Your task to perform on an android device: Is it going to rain this weekend? Image 0: 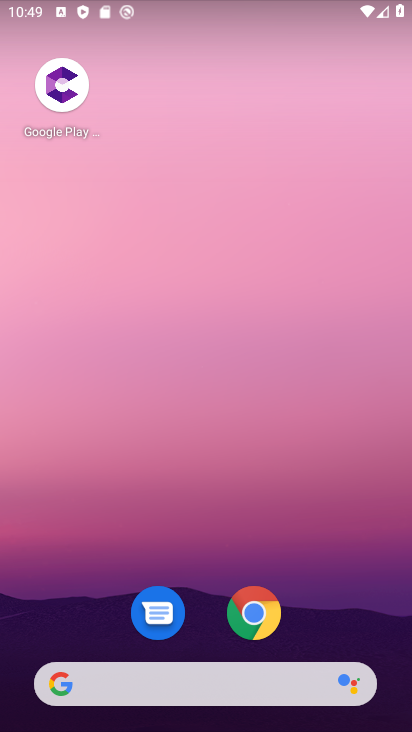
Step 0: click (149, 694)
Your task to perform on an android device: Is it going to rain this weekend? Image 1: 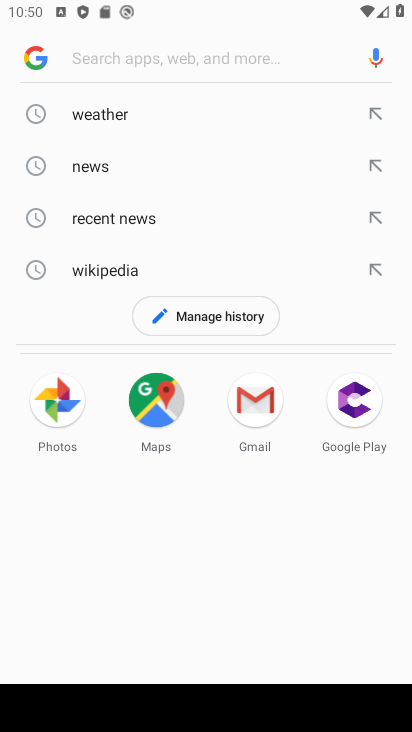
Step 1: click (107, 119)
Your task to perform on an android device: Is it going to rain this weekend? Image 2: 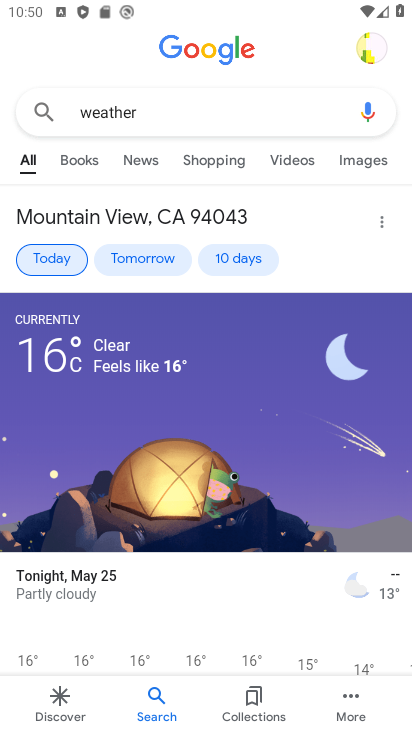
Step 2: click (54, 255)
Your task to perform on an android device: Is it going to rain this weekend? Image 3: 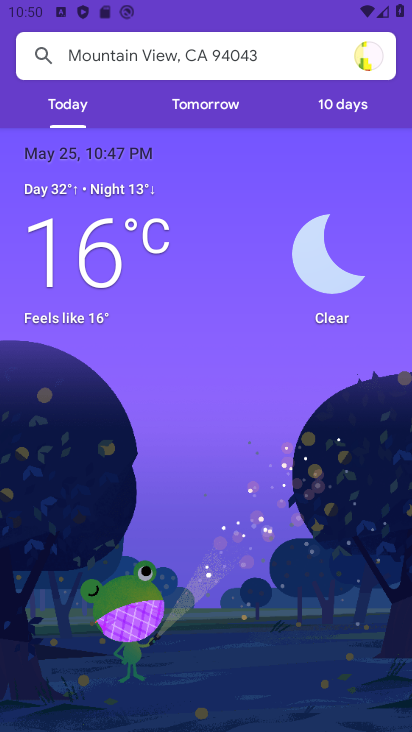
Step 3: click (344, 110)
Your task to perform on an android device: Is it going to rain this weekend? Image 4: 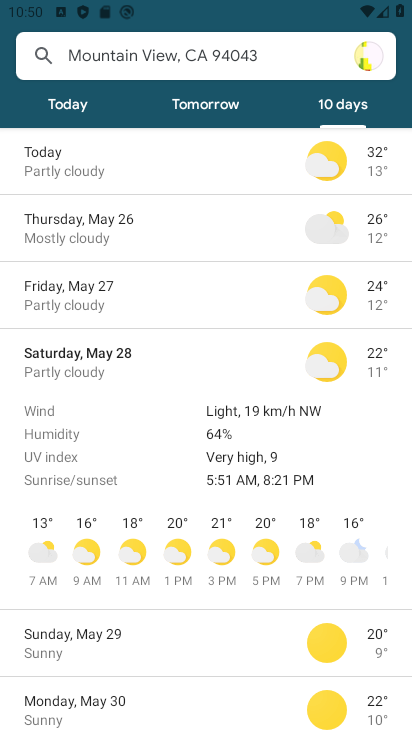
Step 4: task complete